Your task to perform on an android device: What is the recent news? Image 0: 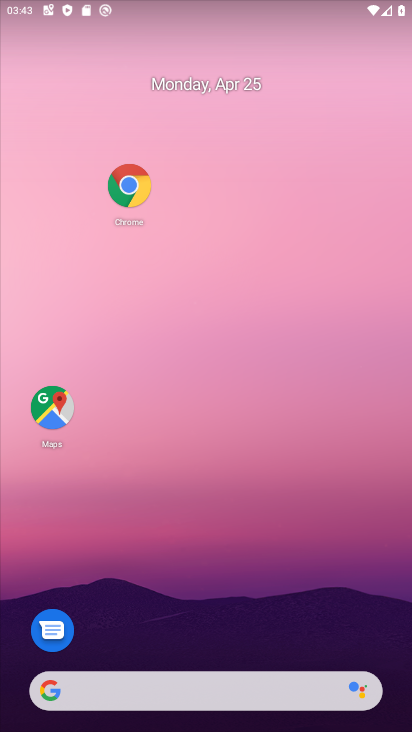
Step 0: drag from (160, 648) to (182, 131)
Your task to perform on an android device: What is the recent news? Image 1: 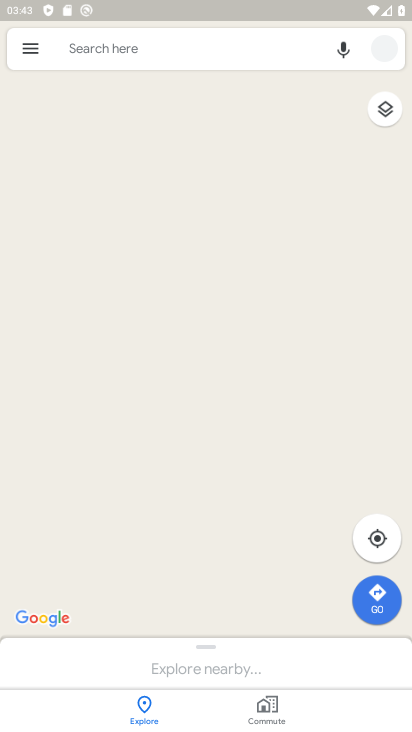
Step 1: press home button
Your task to perform on an android device: What is the recent news? Image 2: 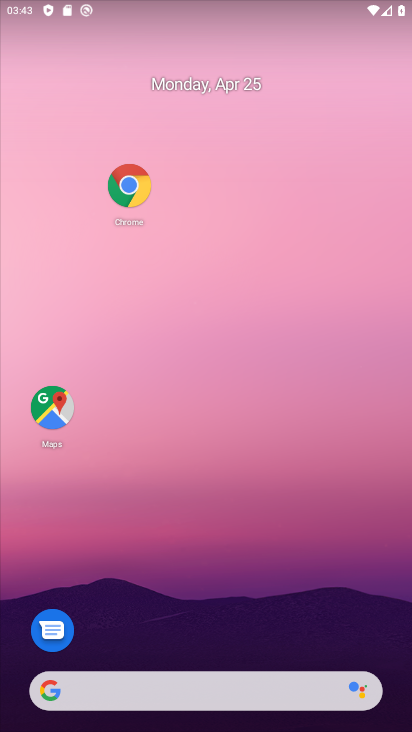
Step 2: click (128, 176)
Your task to perform on an android device: What is the recent news? Image 3: 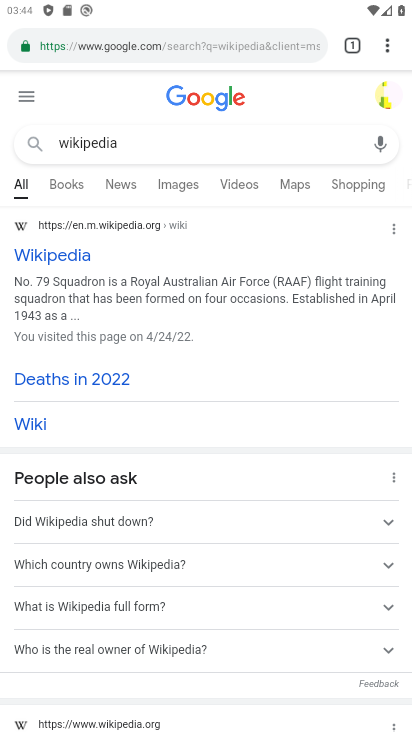
Step 3: click (145, 137)
Your task to perform on an android device: What is the recent news? Image 4: 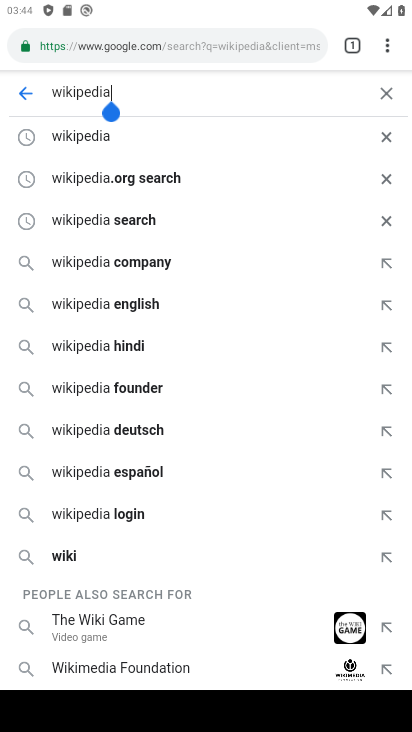
Step 4: click (387, 96)
Your task to perform on an android device: What is the recent news? Image 5: 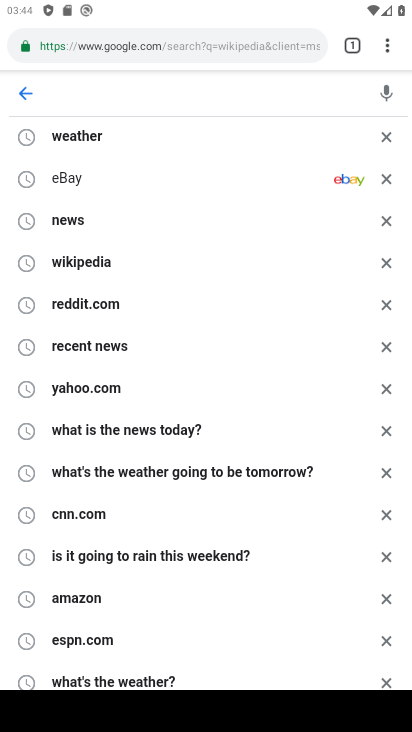
Step 5: type "recent news"
Your task to perform on an android device: What is the recent news? Image 6: 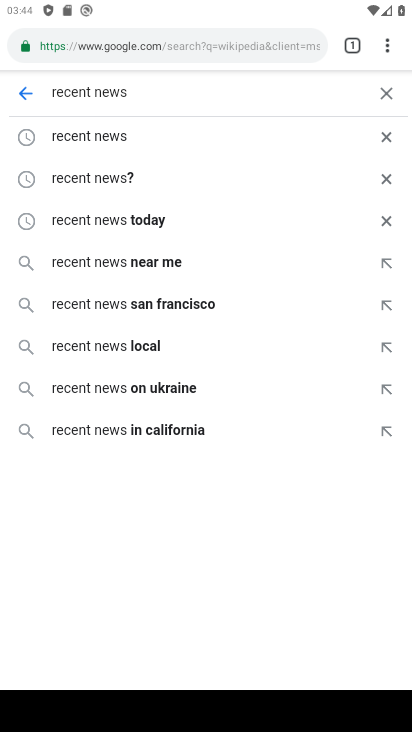
Step 6: click (73, 144)
Your task to perform on an android device: What is the recent news? Image 7: 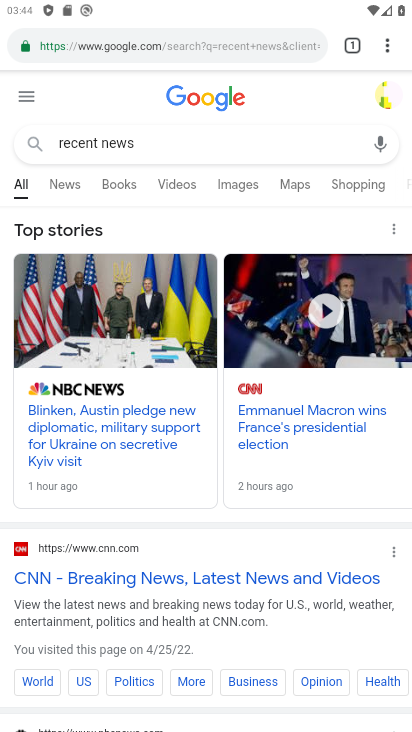
Step 7: task complete